Your task to perform on an android device: find snoozed emails in the gmail app Image 0: 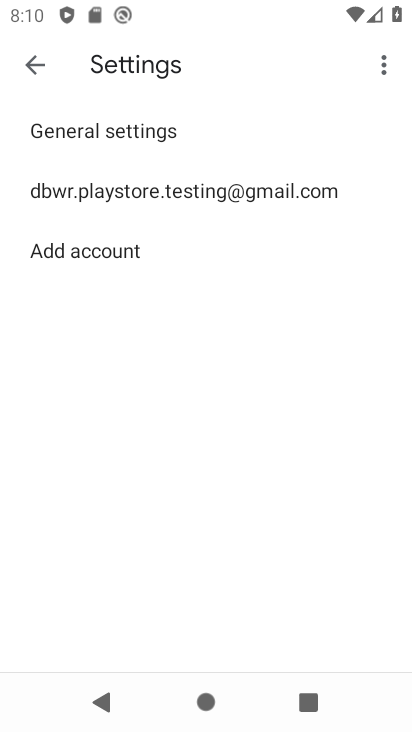
Step 0: click (31, 63)
Your task to perform on an android device: find snoozed emails in the gmail app Image 1: 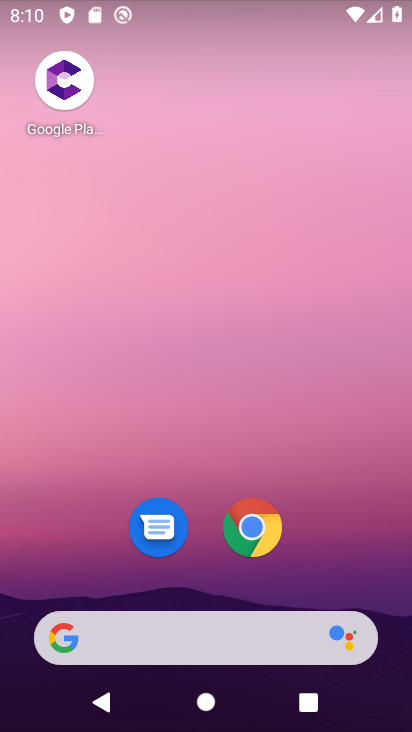
Step 1: drag from (220, 480) to (190, 221)
Your task to perform on an android device: find snoozed emails in the gmail app Image 2: 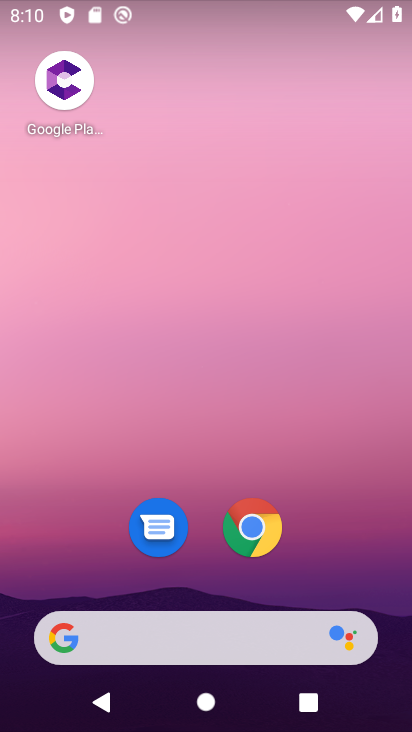
Step 2: drag from (213, 607) to (207, 52)
Your task to perform on an android device: find snoozed emails in the gmail app Image 3: 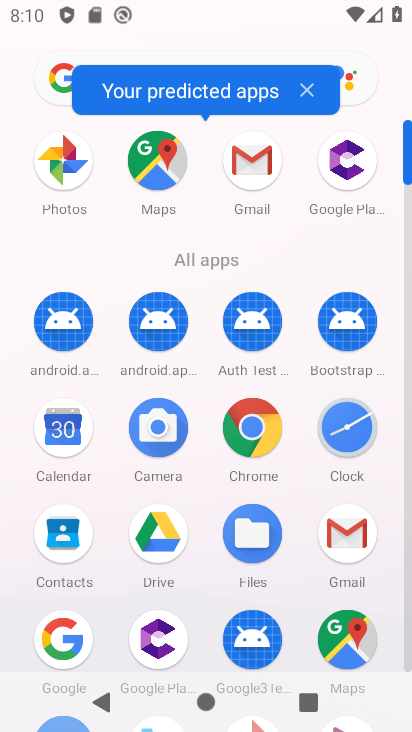
Step 3: click (368, 548)
Your task to perform on an android device: find snoozed emails in the gmail app Image 4: 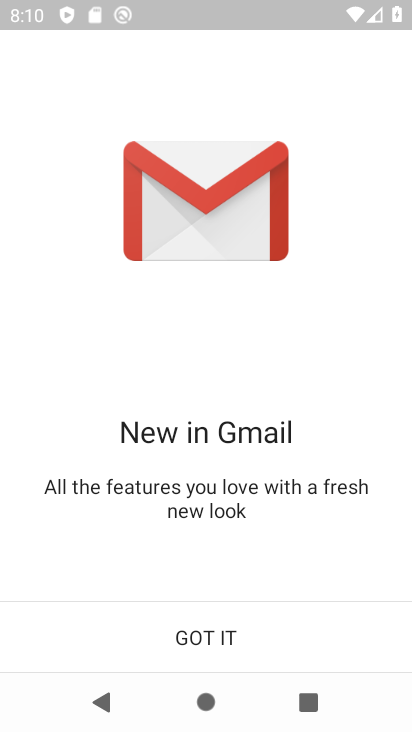
Step 4: click (221, 642)
Your task to perform on an android device: find snoozed emails in the gmail app Image 5: 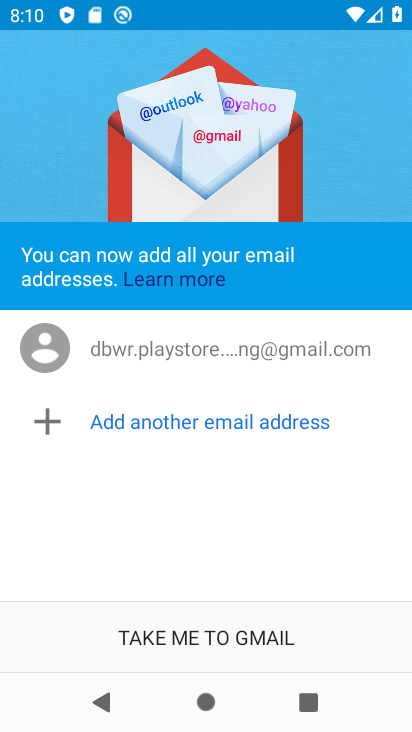
Step 5: click (221, 642)
Your task to perform on an android device: find snoozed emails in the gmail app Image 6: 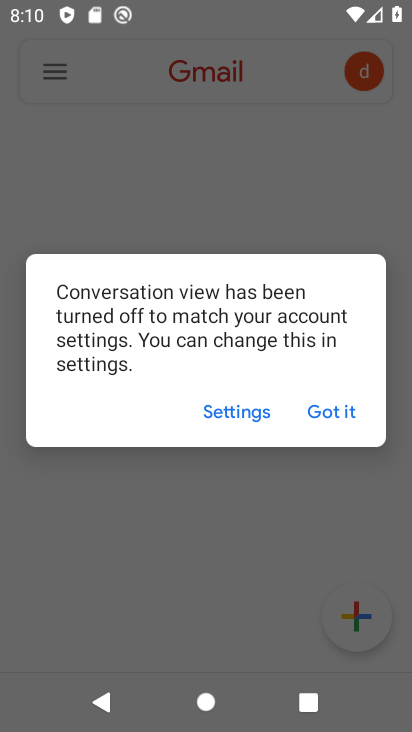
Step 6: click (341, 404)
Your task to perform on an android device: find snoozed emails in the gmail app Image 7: 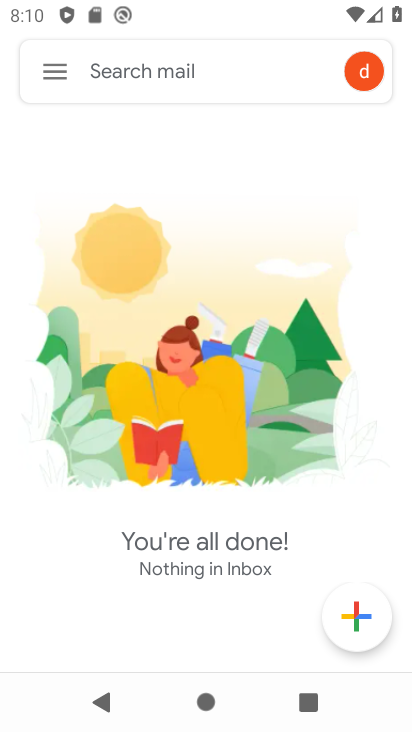
Step 7: click (61, 68)
Your task to perform on an android device: find snoozed emails in the gmail app Image 8: 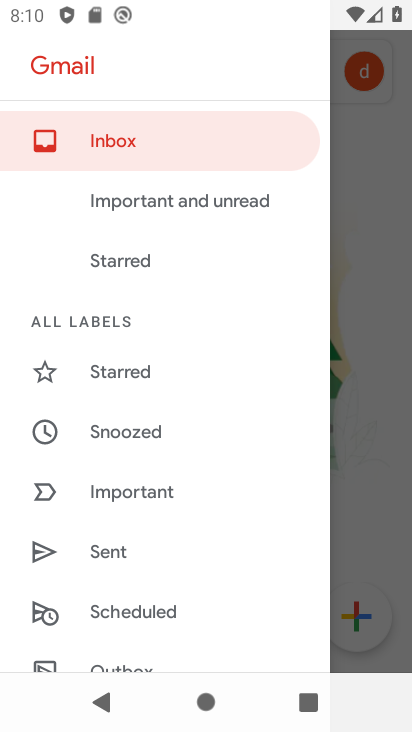
Step 8: click (145, 437)
Your task to perform on an android device: find snoozed emails in the gmail app Image 9: 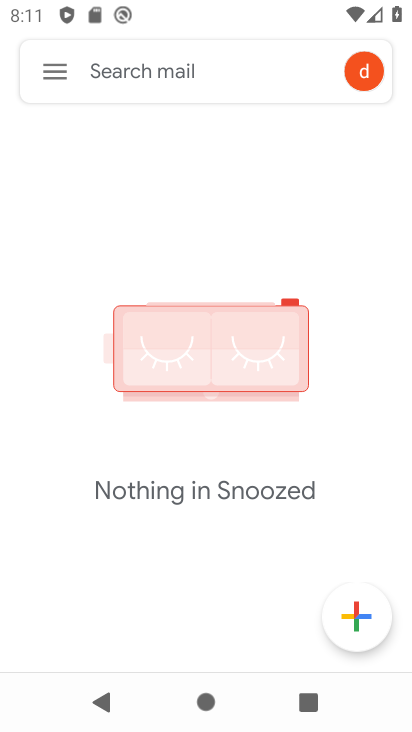
Step 9: task complete